Your task to perform on an android device: change timer sound Image 0: 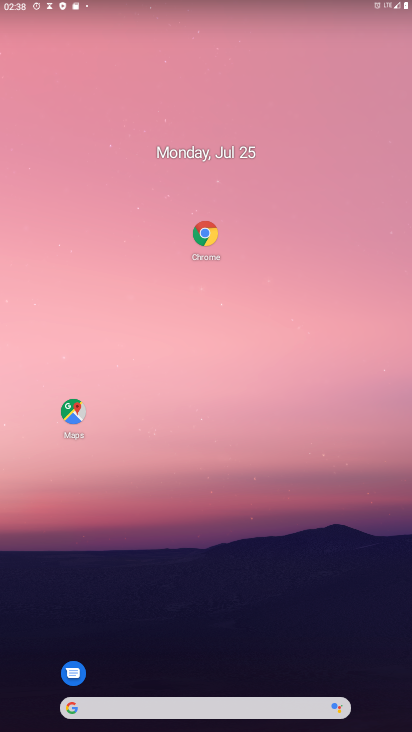
Step 0: drag from (327, 701) to (370, 177)
Your task to perform on an android device: change timer sound Image 1: 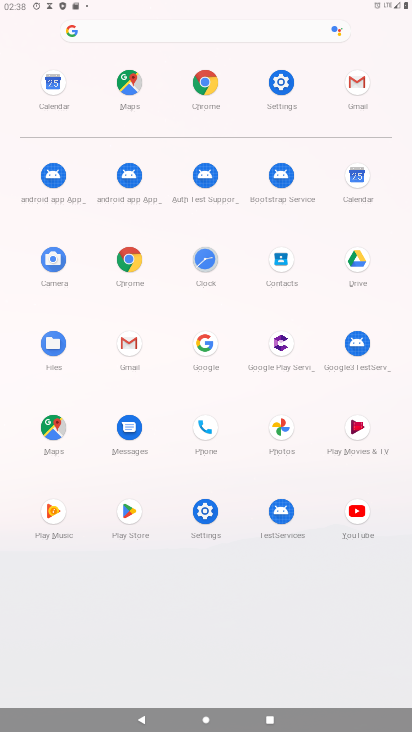
Step 1: click (196, 256)
Your task to perform on an android device: change timer sound Image 2: 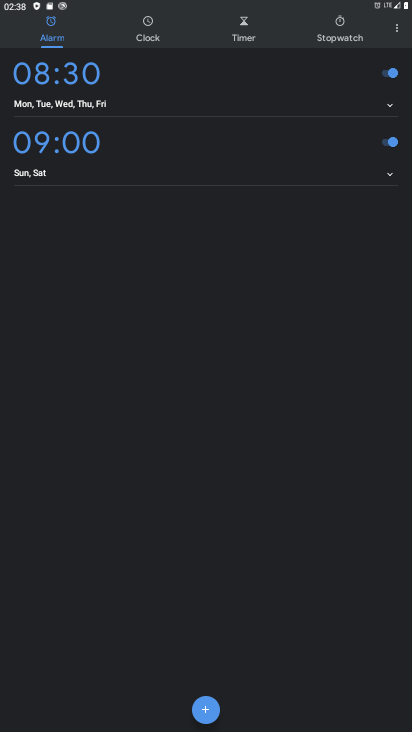
Step 2: click (239, 38)
Your task to perform on an android device: change timer sound Image 3: 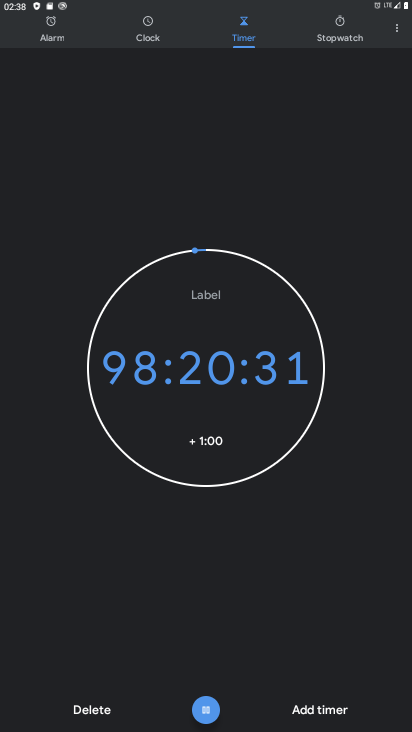
Step 3: click (399, 28)
Your task to perform on an android device: change timer sound Image 4: 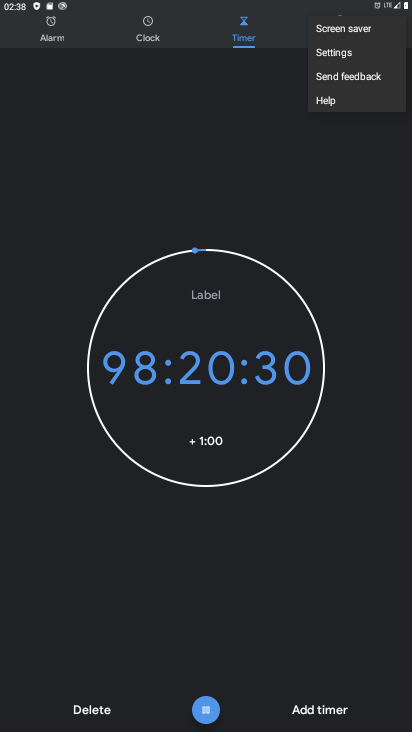
Step 4: click (360, 56)
Your task to perform on an android device: change timer sound Image 5: 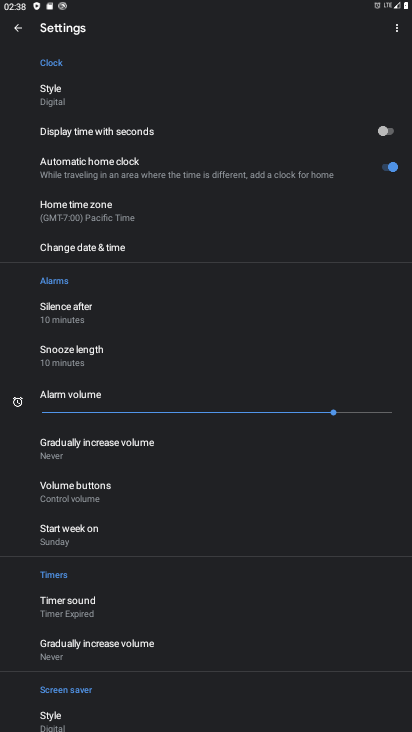
Step 5: click (105, 604)
Your task to perform on an android device: change timer sound Image 6: 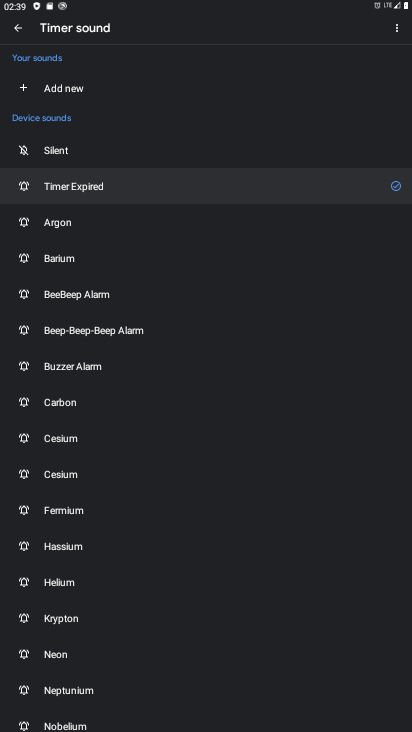
Step 6: click (67, 218)
Your task to perform on an android device: change timer sound Image 7: 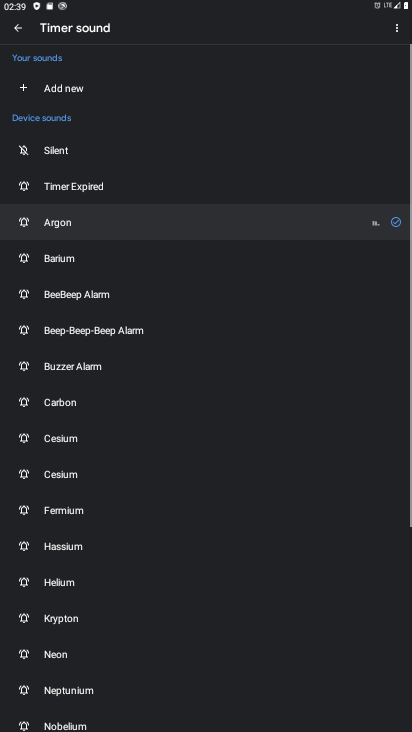
Step 7: task complete